Your task to perform on an android device: turn on airplane mode Image 0: 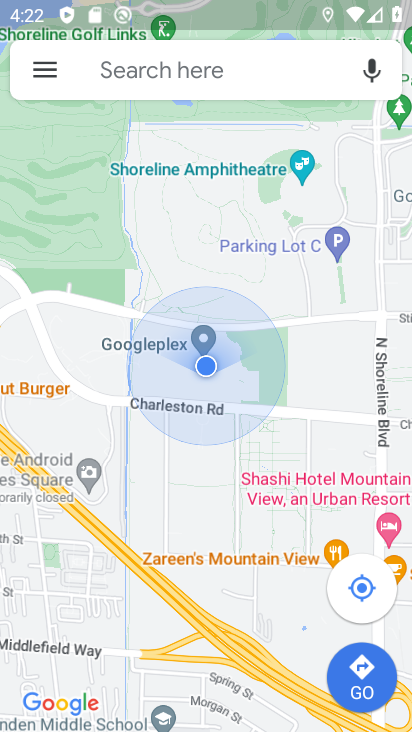
Step 0: press home button
Your task to perform on an android device: turn on airplane mode Image 1: 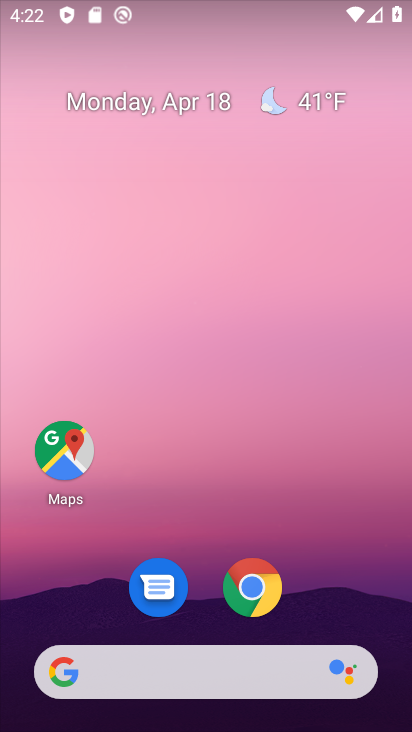
Step 1: click (284, 211)
Your task to perform on an android device: turn on airplane mode Image 2: 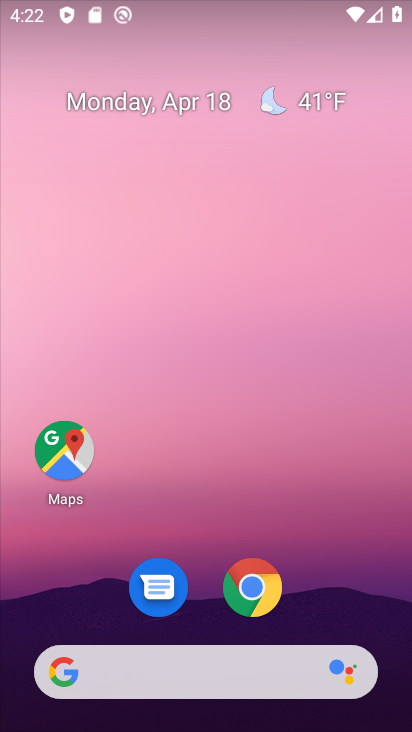
Step 2: drag from (289, 567) to (293, 271)
Your task to perform on an android device: turn on airplane mode Image 3: 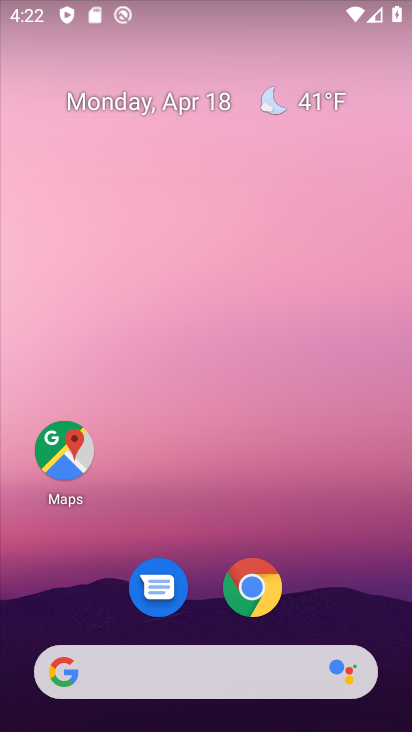
Step 3: drag from (281, 622) to (278, 284)
Your task to perform on an android device: turn on airplane mode Image 4: 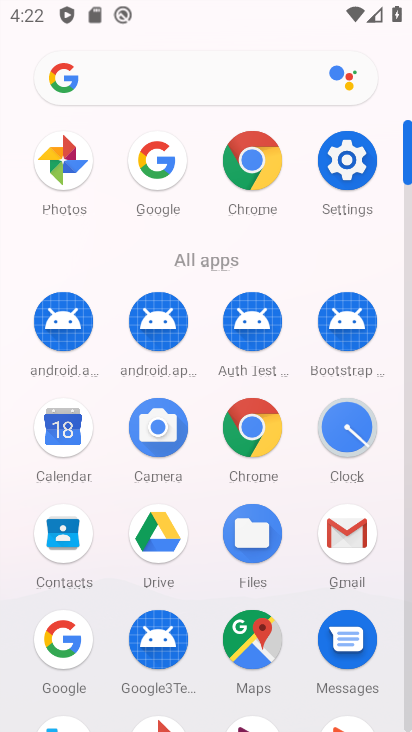
Step 4: click (359, 157)
Your task to perform on an android device: turn on airplane mode Image 5: 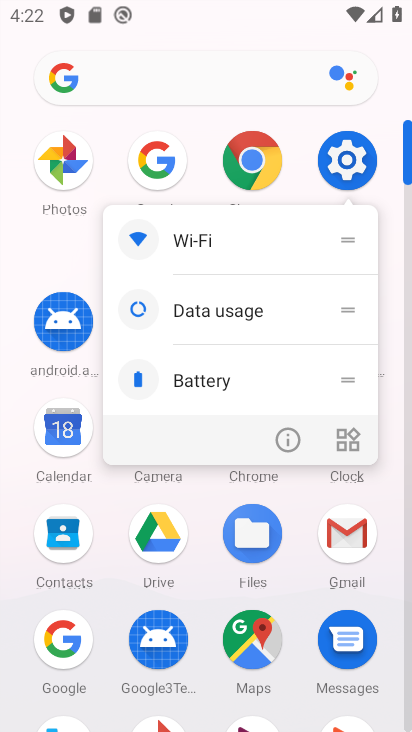
Step 5: click (338, 157)
Your task to perform on an android device: turn on airplane mode Image 6: 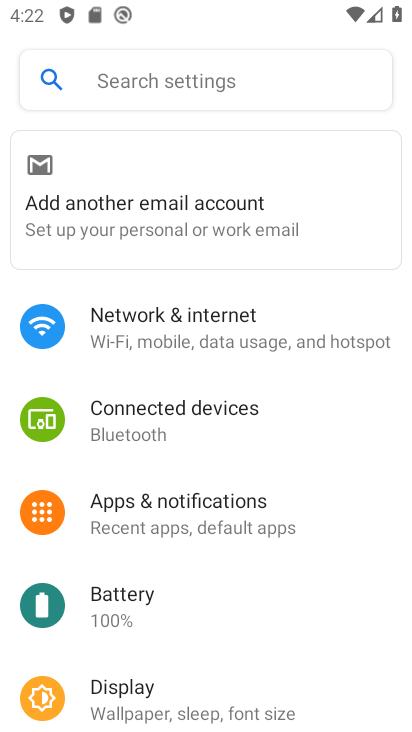
Step 6: click (220, 342)
Your task to perform on an android device: turn on airplane mode Image 7: 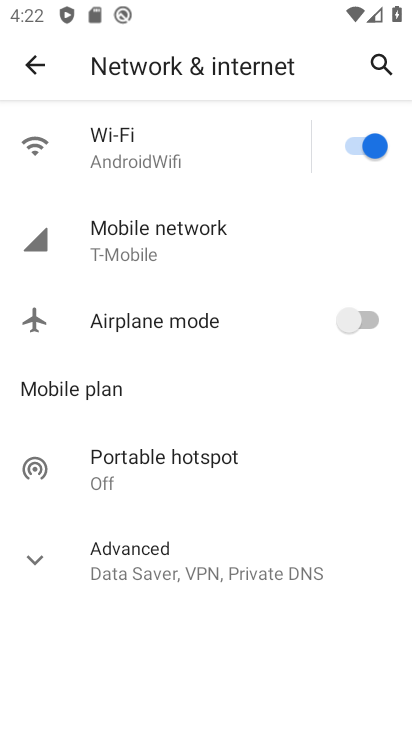
Step 7: click (345, 322)
Your task to perform on an android device: turn on airplane mode Image 8: 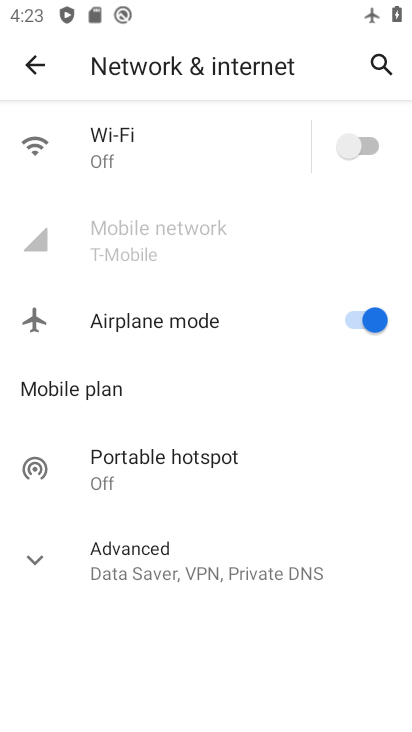
Step 8: task complete